Your task to perform on an android device: Open maps Image 0: 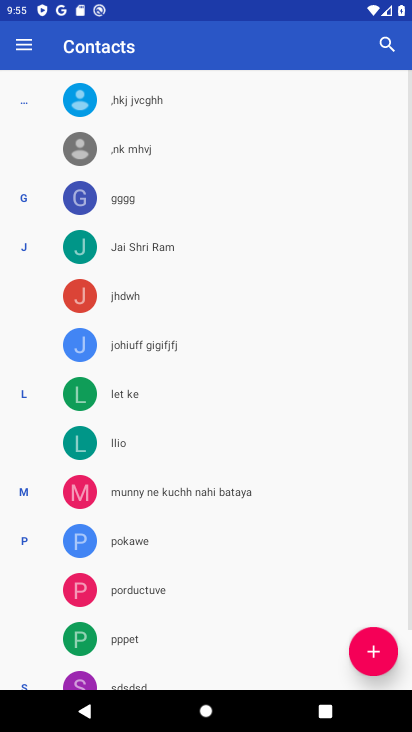
Step 0: press home button
Your task to perform on an android device: Open maps Image 1: 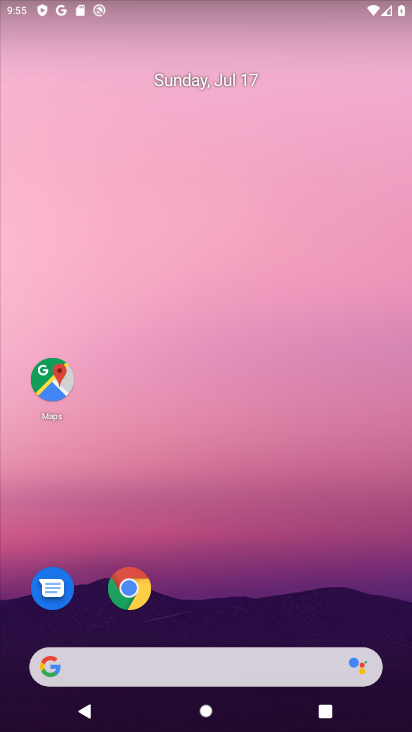
Step 1: drag from (209, 630) to (151, 123)
Your task to perform on an android device: Open maps Image 2: 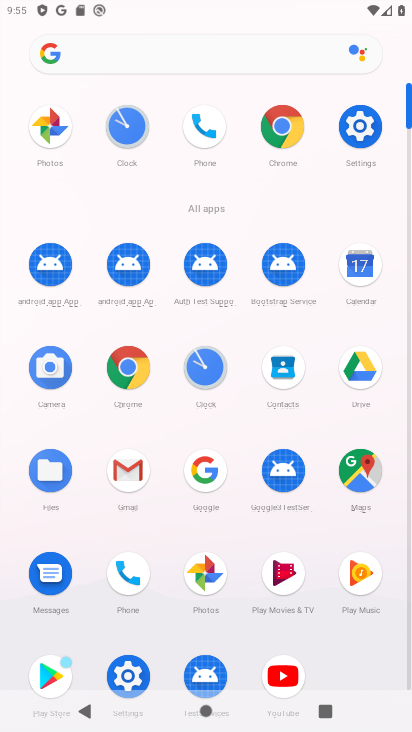
Step 2: click (356, 476)
Your task to perform on an android device: Open maps Image 3: 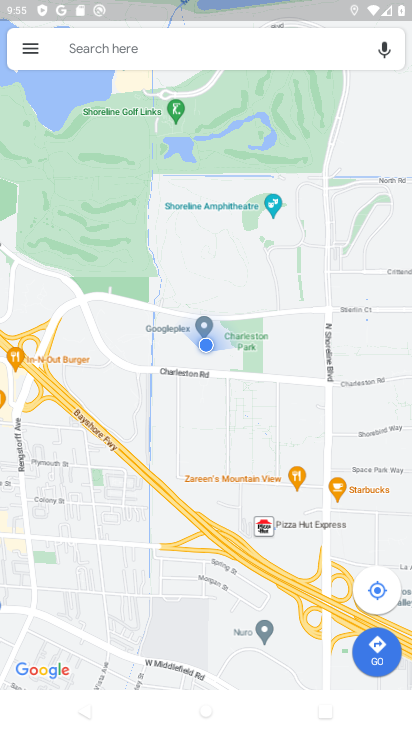
Step 3: task complete